Your task to perform on an android device: turn on location history Image 0: 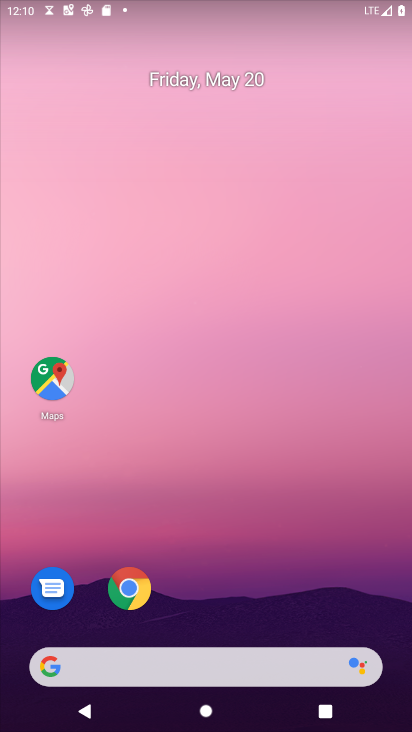
Step 0: drag from (297, 520) to (193, 12)
Your task to perform on an android device: turn on location history Image 1: 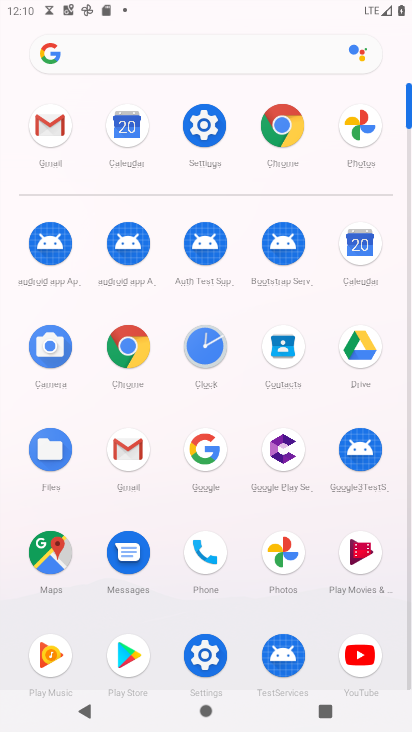
Step 1: click (204, 125)
Your task to perform on an android device: turn on location history Image 2: 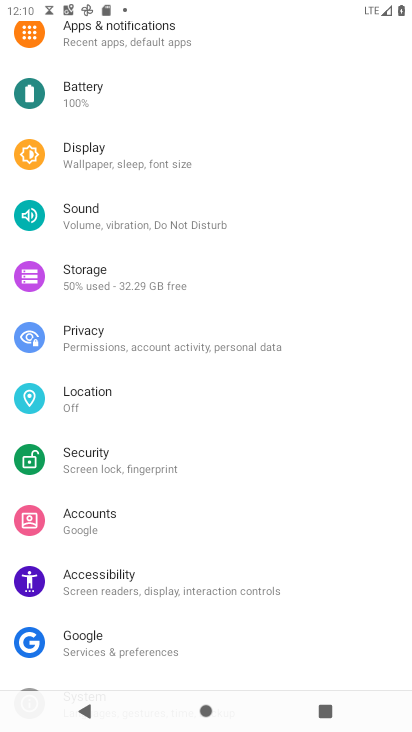
Step 2: click (120, 403)
Your task to perform on an android device: turn on location history Image 3: 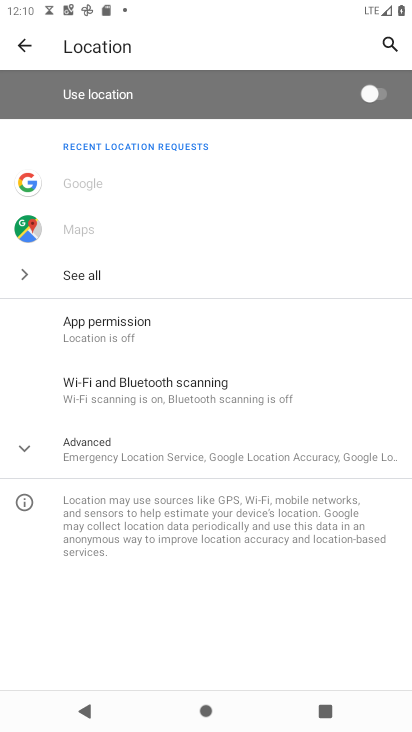
Step 3: click (142, 449)
Your task to perform on an android device: turn on location history Image 4: 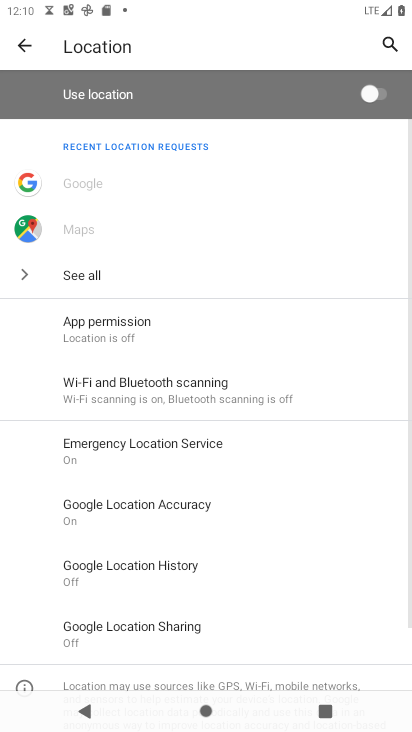
Step 4: click (198, 576)
Your task to perform on an android device: turn on location history Image 5: 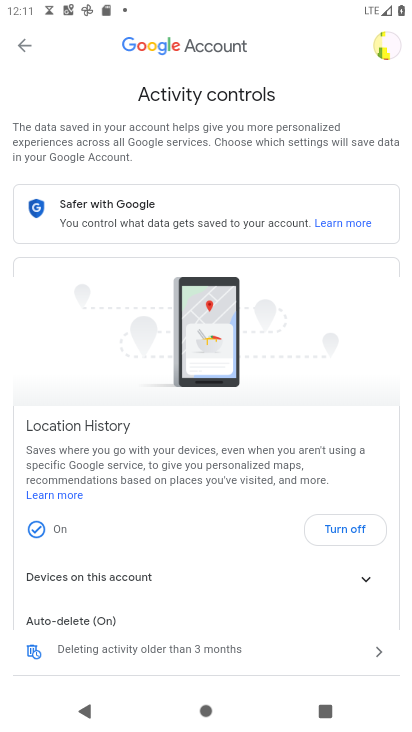
Step 5: task complete